Your task to perform on an android device: turn off data saver in the chrome app Image 0: 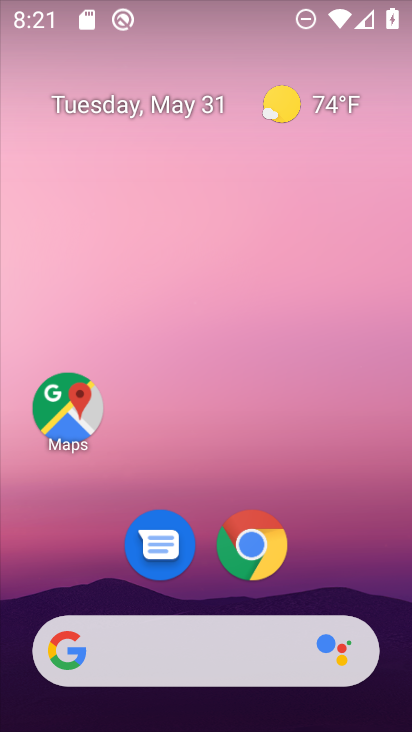
Step 0: drag from (342, 531) to (203, 10)
Your task to perform on an android device: turn off data saver in the chrome app Image 1: 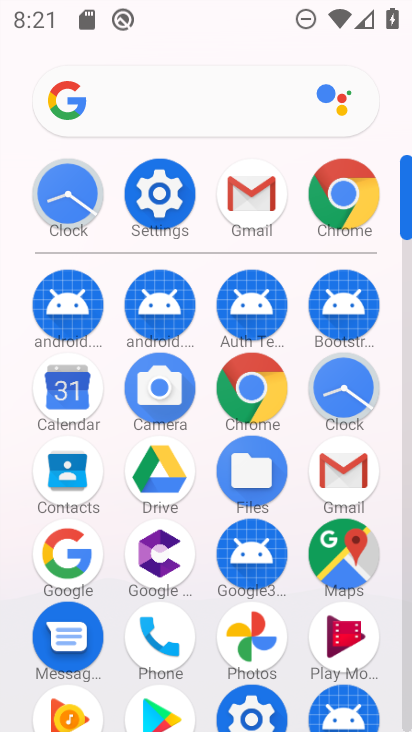
Step 1: drag from (7, 628) to (7, 263)
Your task to perform on an android device: turn off data saver in the chrome app Image 2: 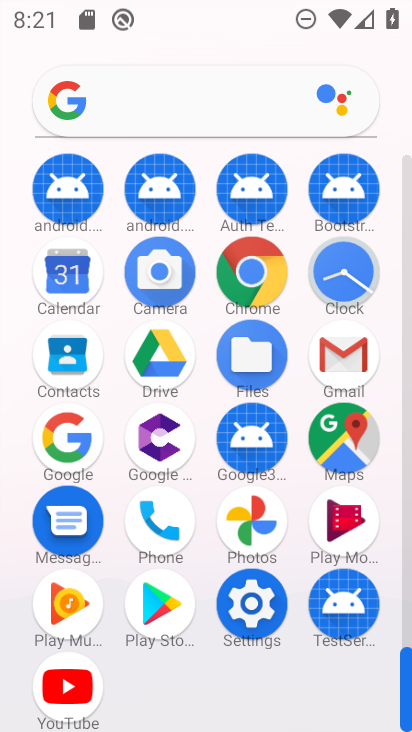
Step 2: click (249, 268)
Your task to perform on an android device: turn off data saver in the chrome app Image 3: 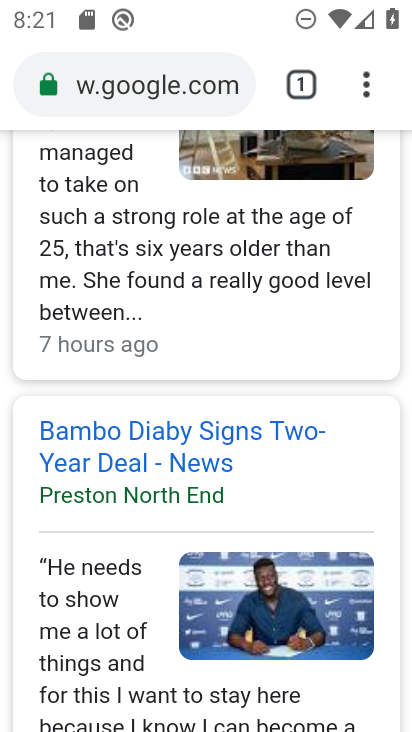
Step 3: drag from (369, 82) to (216, 593)
Your task to perform on an android device: turn off data saver in the chrome app Image 4: 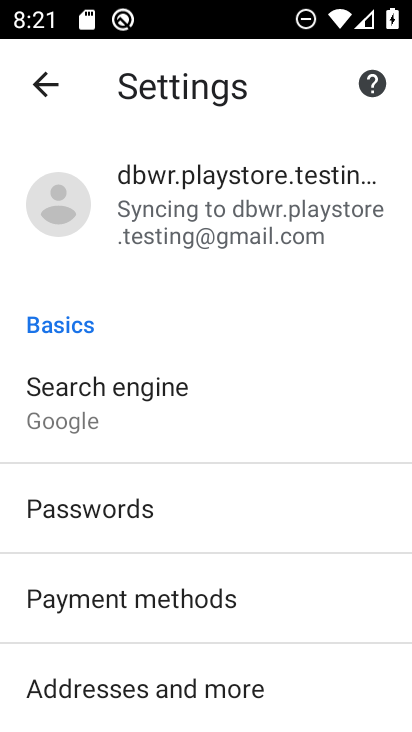
Step 4: drag from (270, 607) to (291, 227)
Your task to perform on an android device: turn off data saver in the chrome app Image 5: 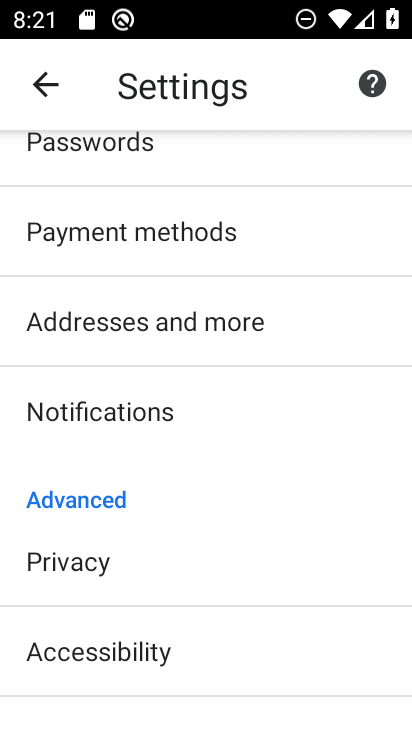
Step 5: drag from (314, 635) to (331, 144)
Your task to perform on an android device: turn off data saver in the chrome app Image 6: 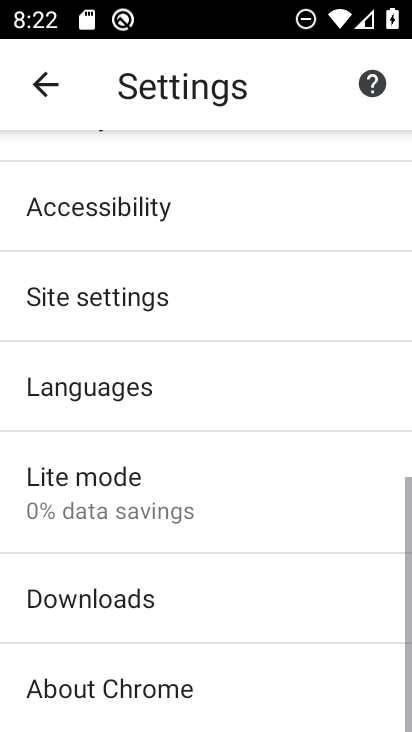
Step 6: click (188, 483)
Your task to perform on an android device: turn off data saver in the chrome app Image 7: 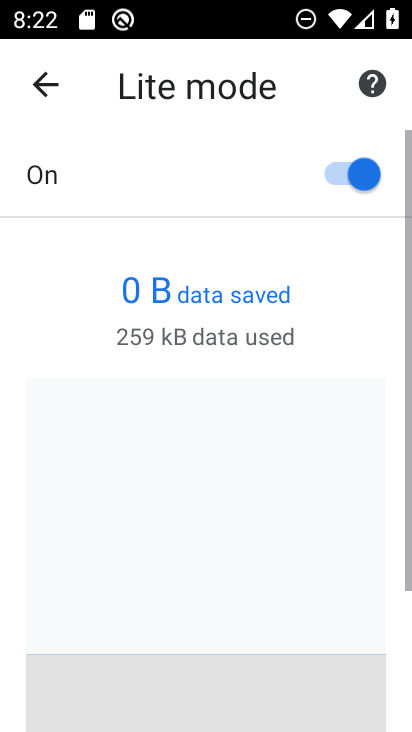
Step 7: click (352, 156)
Your task to perform on an android device: turn off data saver in the chrome app Image 8: 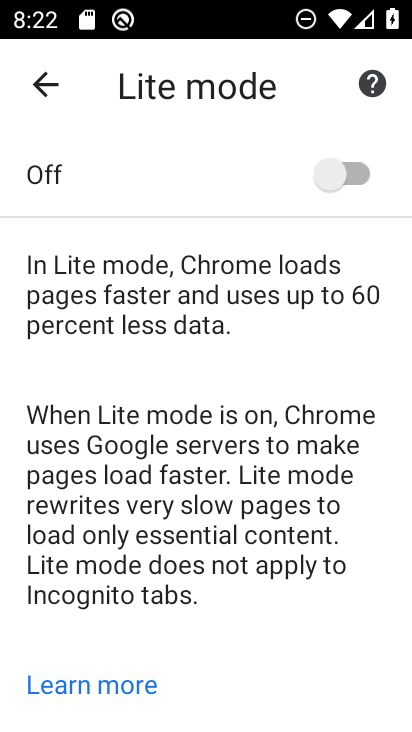
Step 8: task complete